Your task to perform on an android device: Open Chrome and go to the settings page Image 0: 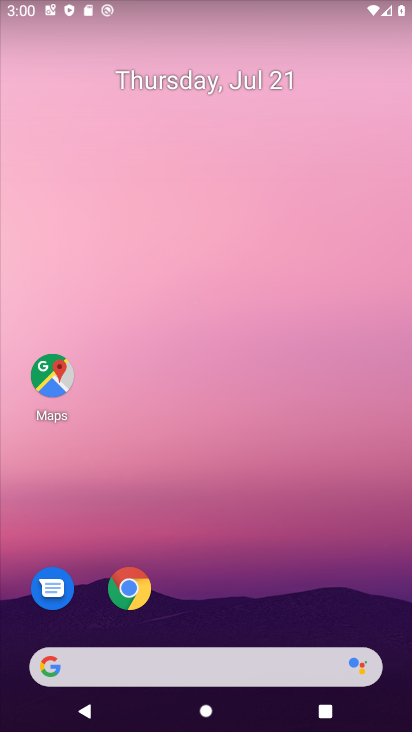
Step 0: click (128, 585)
Your task to perform on an android device: Open Chrome and go to the settings page Image 1: 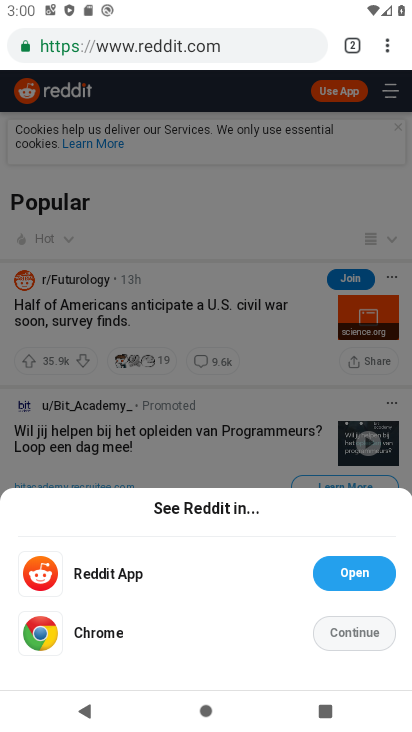
Step 1: click (392, 39)
Your task to perform on an android device: Open Chrome and go to the settings page Image 2: 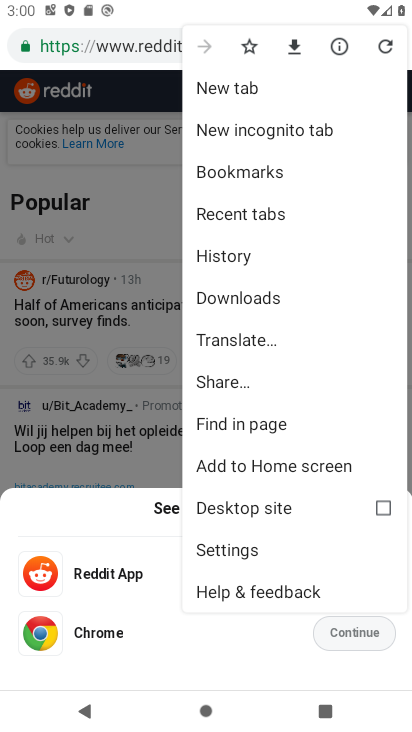
Step 2: click (236, 545)
Your task to perform on an android device: Open Chrome and go to the settings page Image 3: 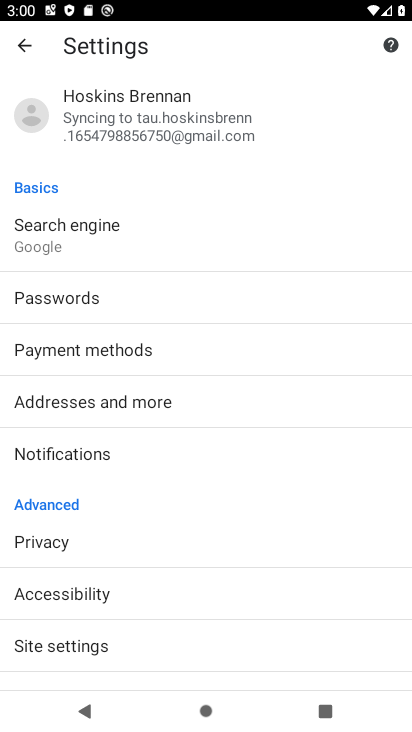
Step 3: task complete